Your task to perform on an android device: change notifications settings Image 0: 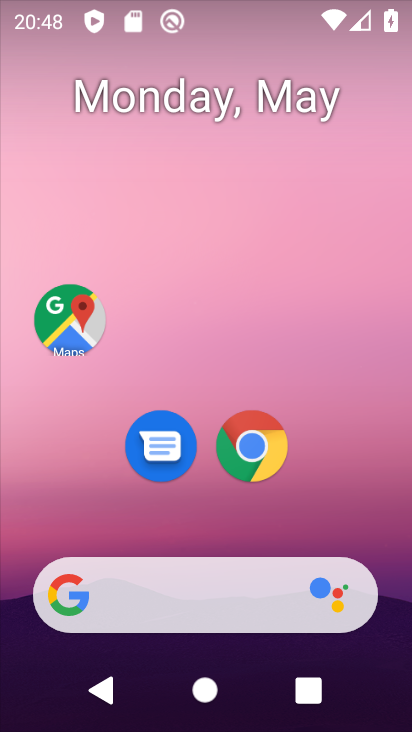
Step 0: drag from (343, 462) to (319, 29)
Your task to perform on an android device: change notifications settings Image 1: 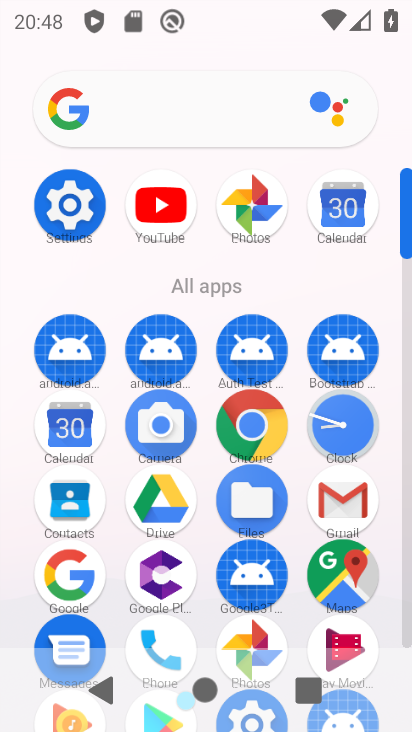
Step 1: click (72, 194)
Your task to perform on an android device: change notifications settings Image 2: 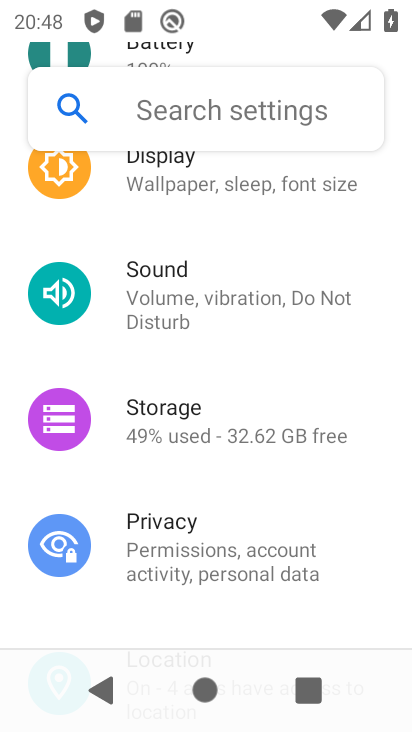
Step 2: drag from (266, 205) to (267, 510)
Your task to perform on an android device: change notifications settings Image 3: 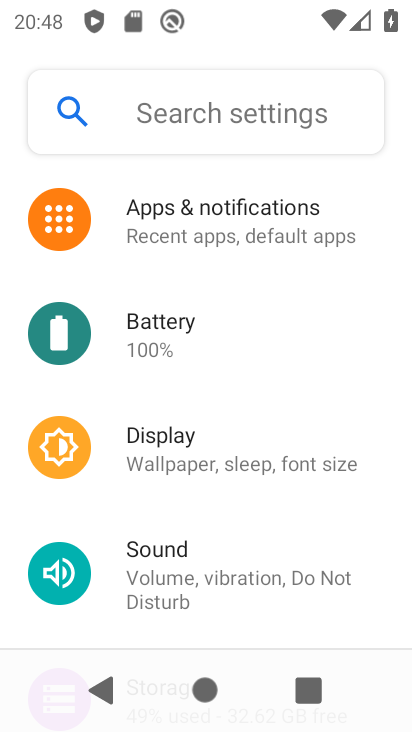
Step 3: click (215, 193)
Your task to perform on an android device: change notifications settings Image 4: 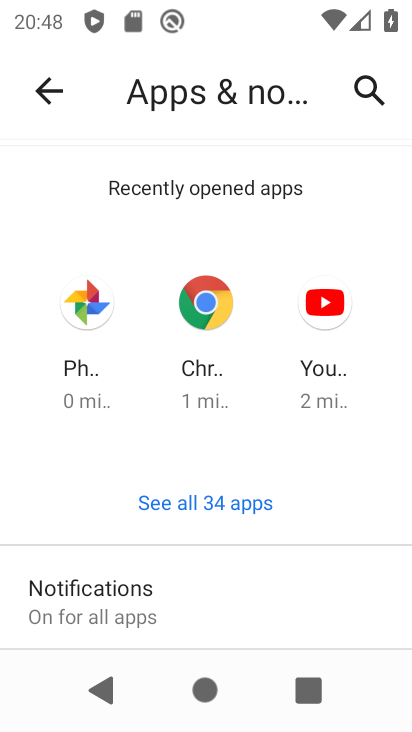
Step 4: drag from (233, 590) to (270, 207)
Your task to perform on an android device: change notifications settings Image 5: 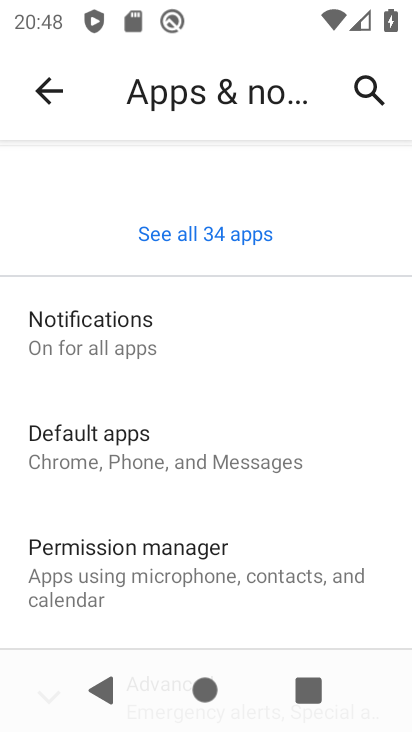
Step 5: click (89, 356)
Your task to perform on an android device: change notifications settings Image 6: 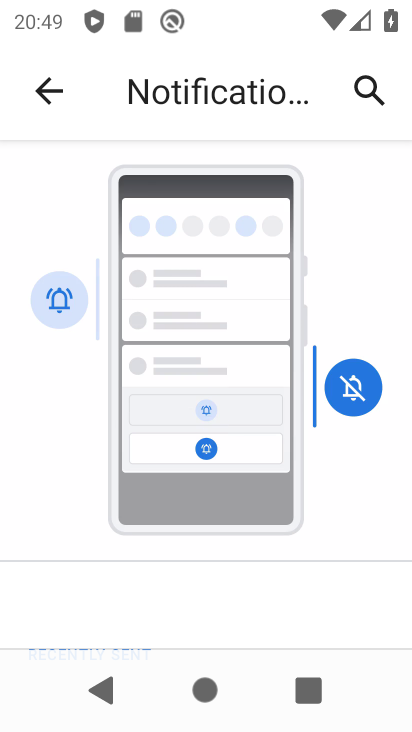
Step 6: task complete